Your task to perform on an android device: Is it going to rain tomorrow? Image 0: 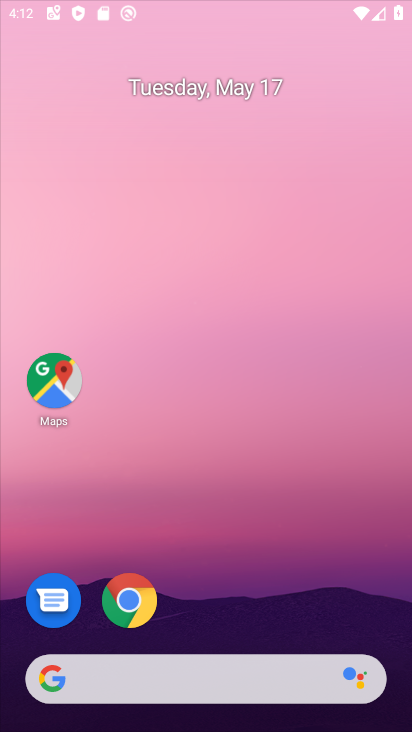
Step 0: click (142, 595)
Your task to perform on an android device: Is it going to rain tomorrow? Image 1: 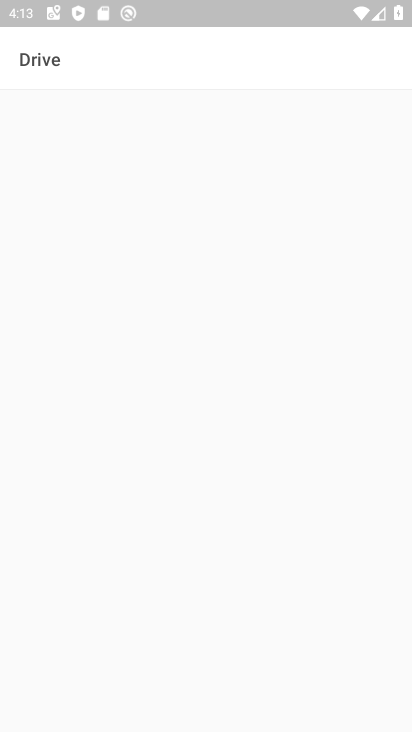
Step 1: press home button
Your task to perform on an android device: Is it going to rain tomorrow? Image 2: 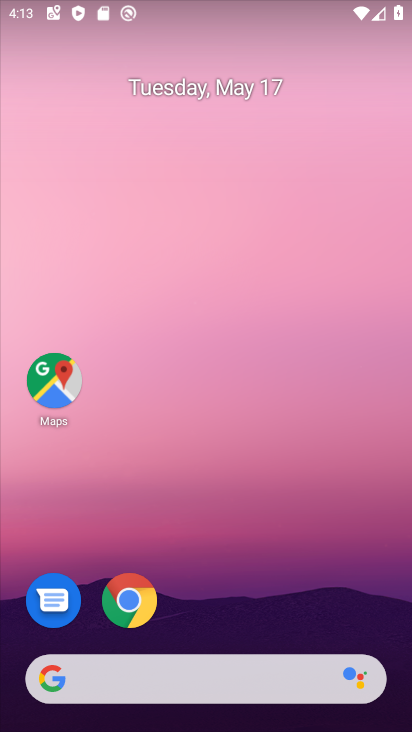
Step 2: drag from (209, 620) to (216, 3)
Your task to perform on an android device: Is it going to rain tomorrow? Image 3: 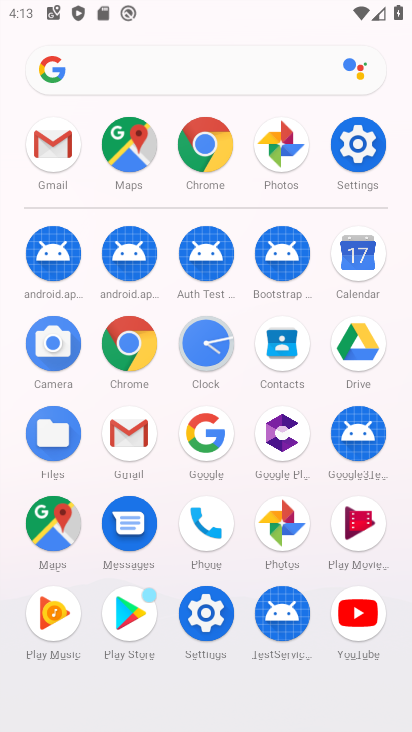
Step 3: click (226, 79)
Your task to perform on an android device: Is it going to rain tomorrow? Image 4: 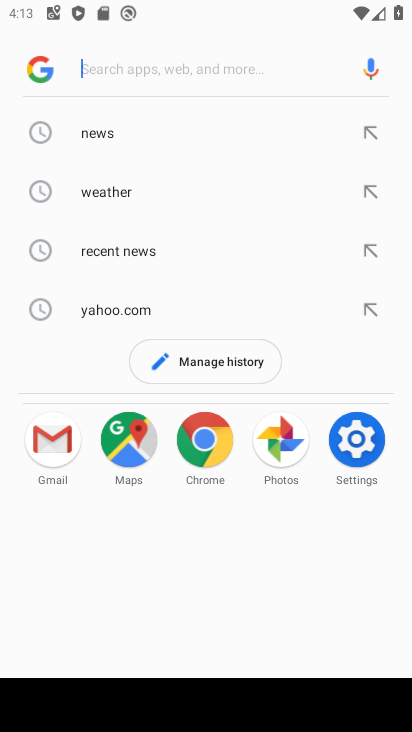
Step 4: click (105, 193)
Your task to perform on an android device: Is it going to rain tomorrow? Image 5: 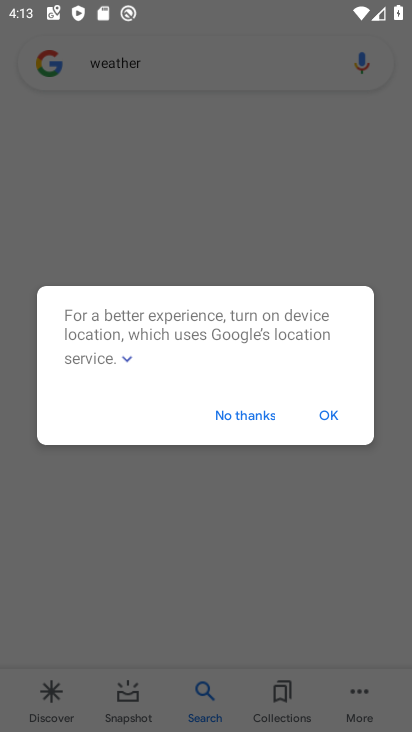
Step 5: click (335, 406)
Your task to perform on an android device: Is it going to rain tomorrow? Image 6: 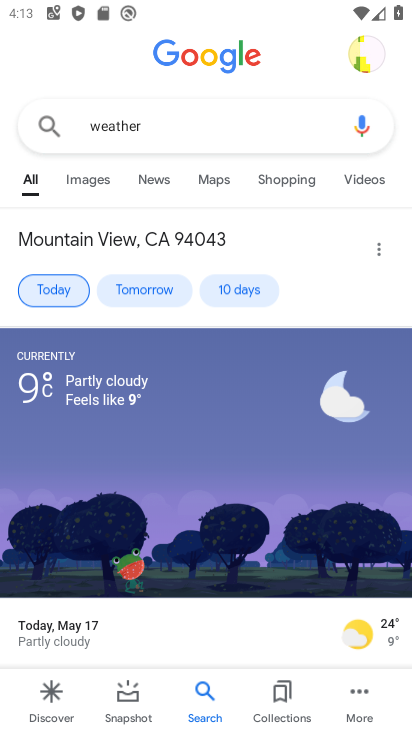
Step 6: click (164, 294)
Your task to perform on an android device: Is it going to rain tomorrow? Image 7: 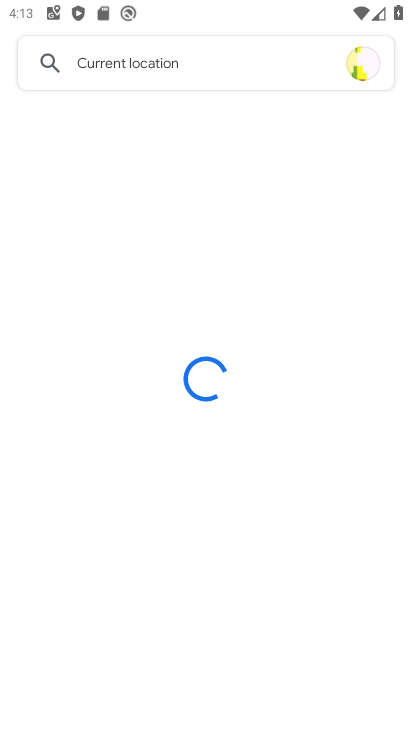
Step 7: task complete